Your task to perform on an android device: change text size in settings app Image 0: 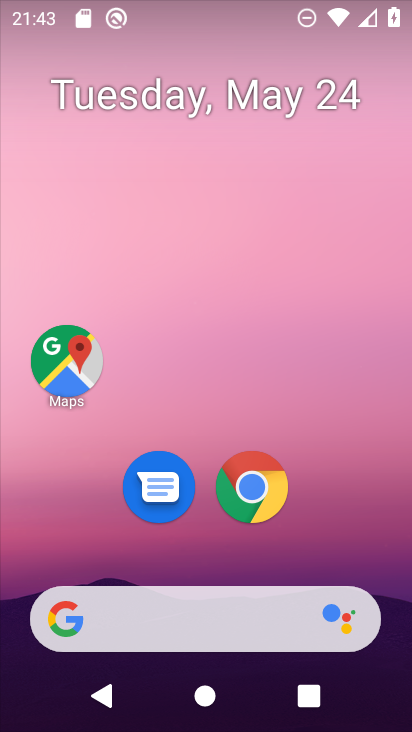
Step 0: press home button
Your task to perform on an android device: change text size in settings app Image 1: 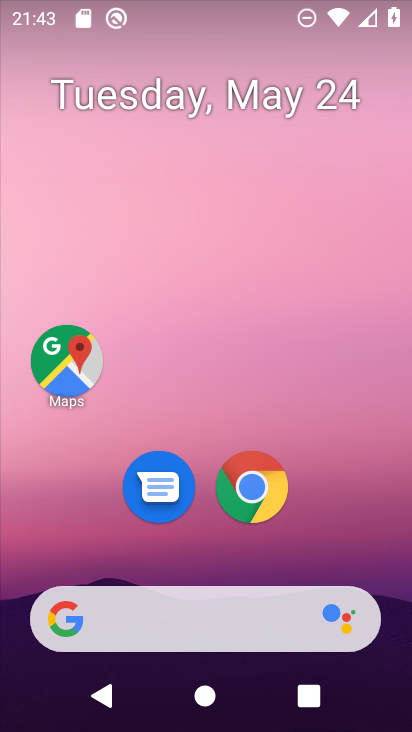
Step 1: drag from (229, 614) to (360, 82)
Your task to perform on an android device: change text size in settings app Image 2: 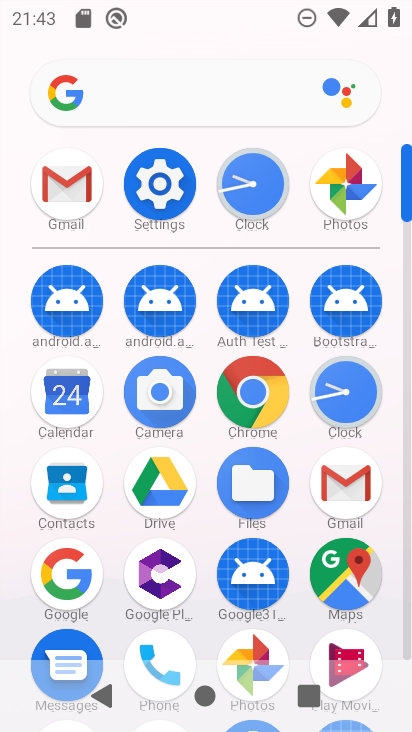
Step 2: click (161, 184)
Your task to perform on an android device: change text size in settings app Image 3: 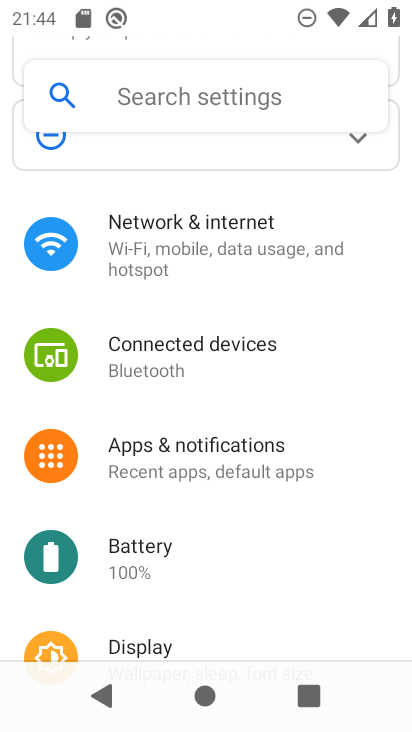
Step 3: drag from (272, 573) to (352, 110)
Your task to perform on an android device: change text size in settings app Image 4: 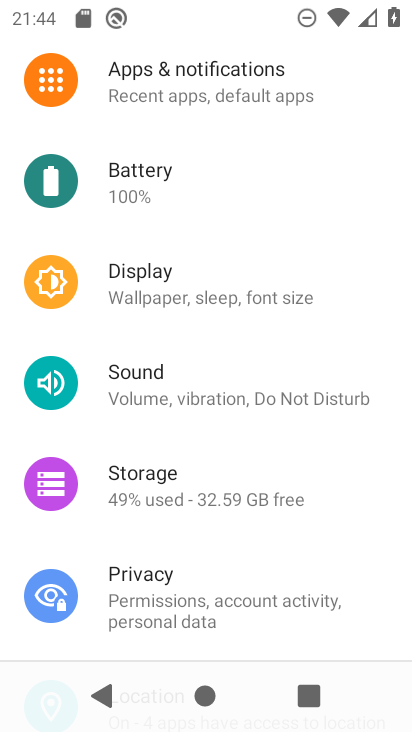
Step 4: click (195, 293)
Your task to perform on an android device: change text size in settings app Image 5: 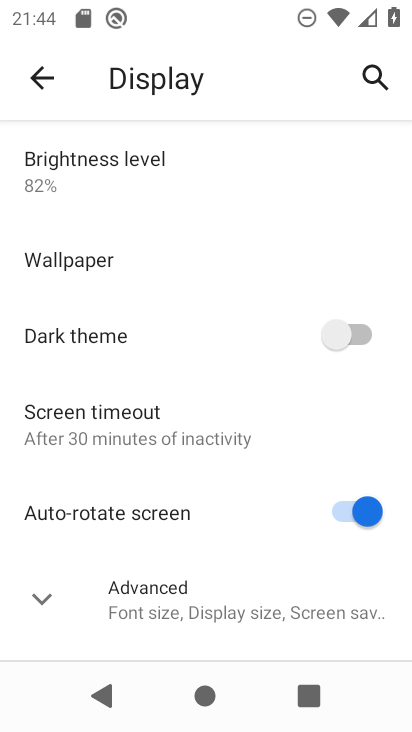
Step 5: click (178, 606)
Your task to perform on an android device: change text size in settings app Image 6: 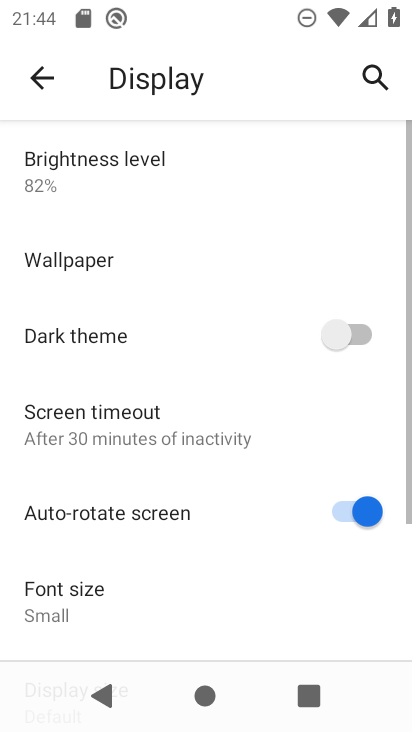
Step 6: drag from (209, 568) to (300, 225)
Your task to perform on an android device: change text size in settings app Image 7: 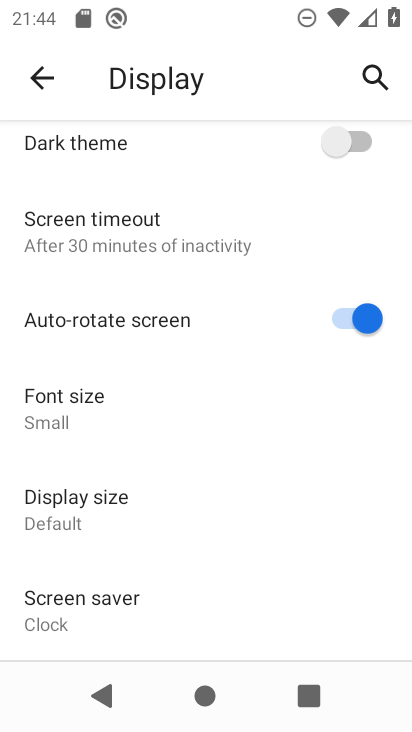
Step 7: click (76, 398)
Your task to perform on an android device: change text size in settings app Image 8: 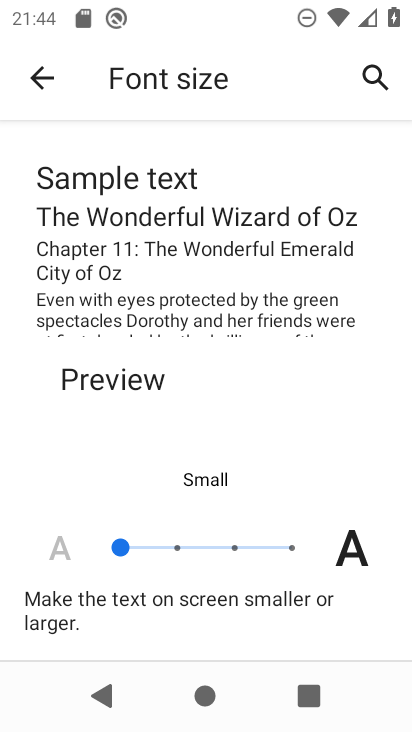
Step 8: click (177, 551)
Your task to perform on an android device: change text size in settings app Image 9: 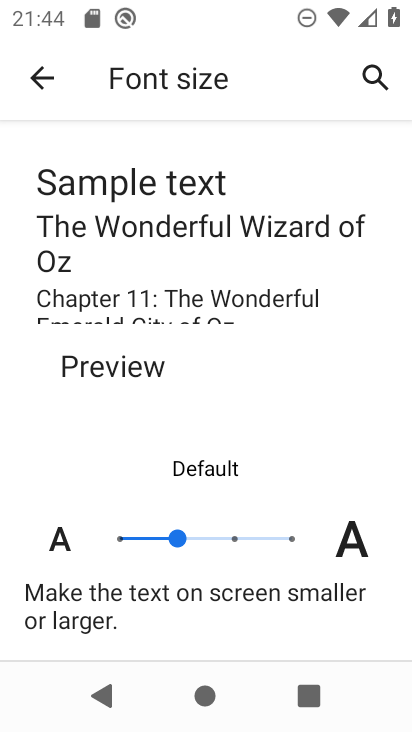
Step 9: task complete